Your task to perform on an android device: turn off sleep mode Image 0: 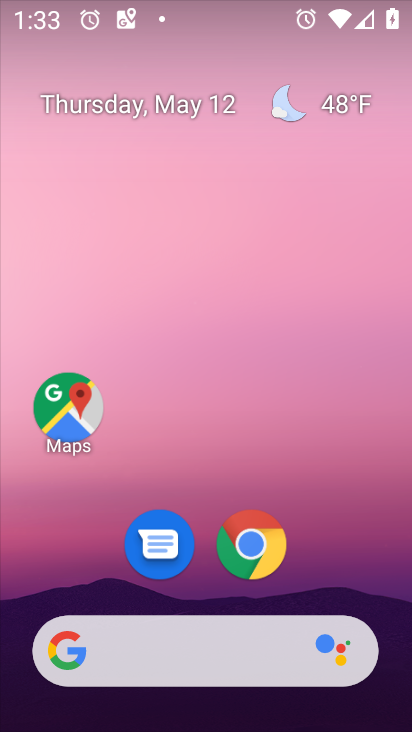
Step 0: drag from (331, 531) to (242, 53)
Your task to perform on an android device: turn off sleep mode Image 1: 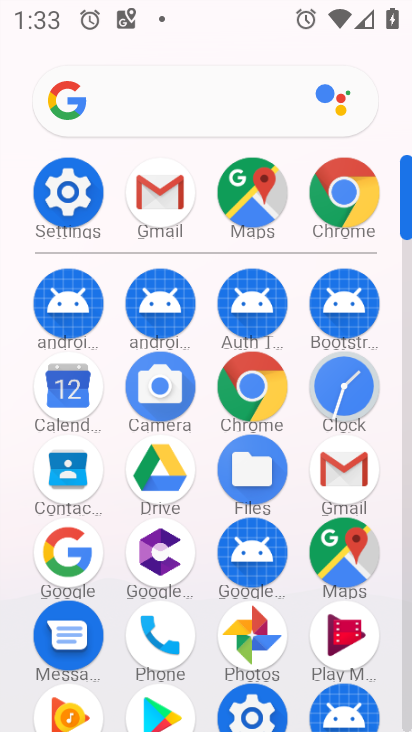
Step 1: drag from (15, 520) to (11, 263)
Your task to perform on an android device: turn off sleep mode Image 2: 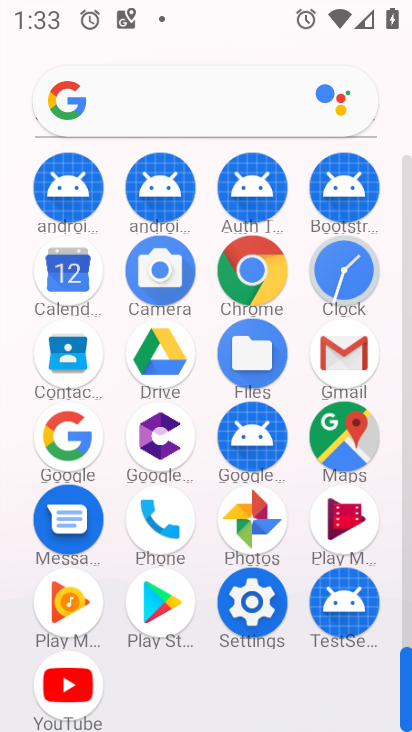
Step 2: click (258, 602)
Your task to perform on an android device: turn off sleep mode Image 3: 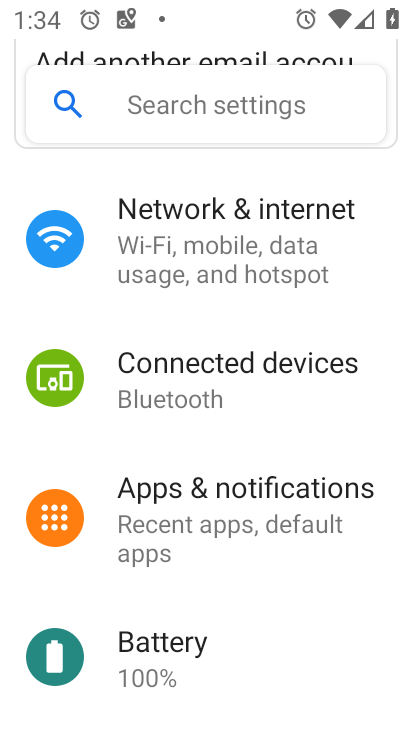
Step 3: drag from (293, 269) to (303, 590)
Your task to perform on an android device: turn off sleep mode Image 4: 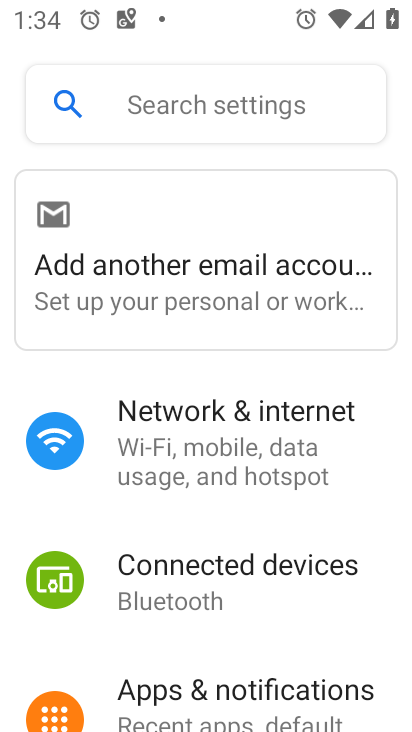
Step 4: drag from (297, 565) to (294, 190)
Your task to perform on an android device: turn off sleep mode Image 5: 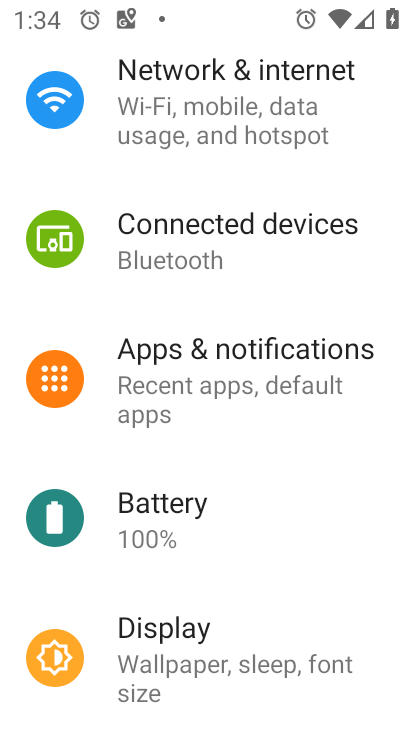
Step 5: click (205, 652)
Your task to perform on an android device: turn off sleep mode Image 6: 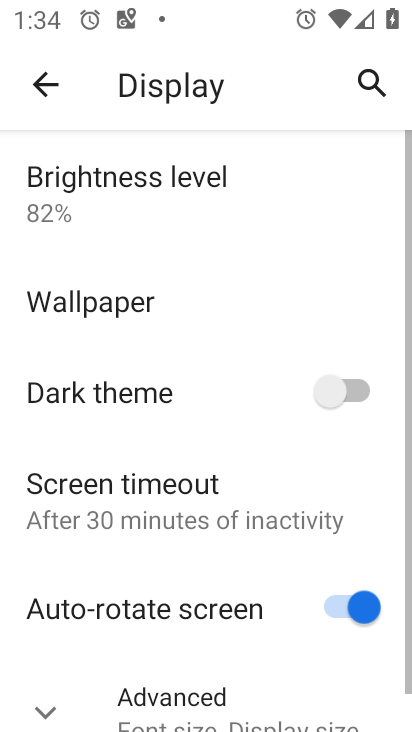
Step 6: drag from (246, 444) to (246, 141)
Your task to perform on an android device: turn off sleep mode Image 7: 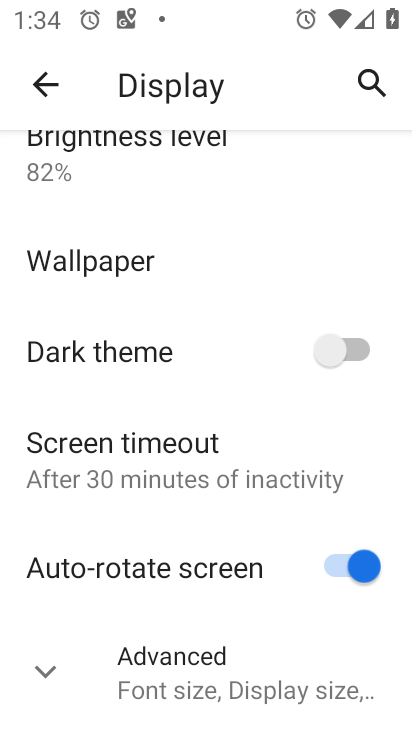
Step 7: click (54, 635)
Your task to perform on an android device: turn off sleep mode Image 8: 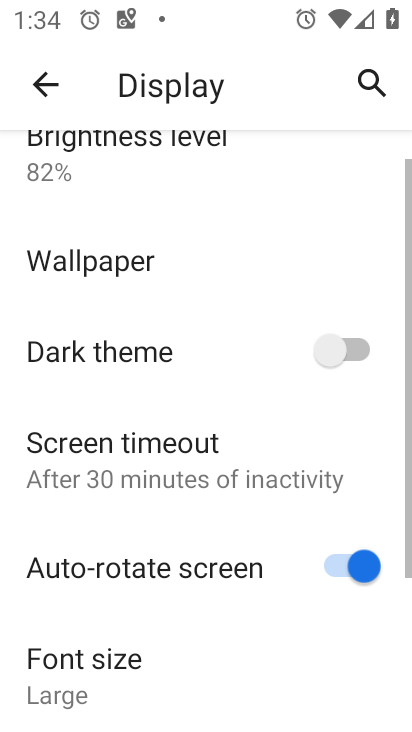
Step 8: task complete